Your task to perform on an android device: Open the map Image 0: 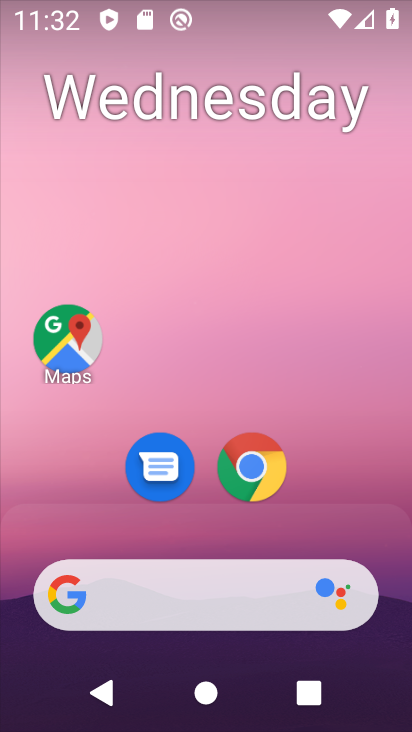
Step 0: click (72, 341)
Your task to perform on an android device: Open the map Image 1: 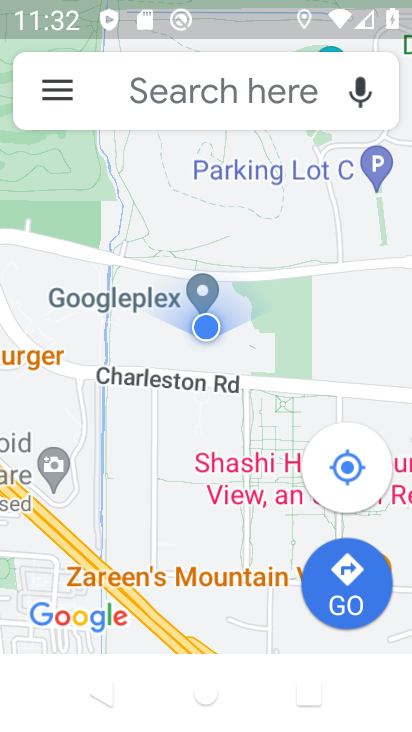
Step 1: task complete